Your task to perform on an android device: turn on airplane mode Image 0: 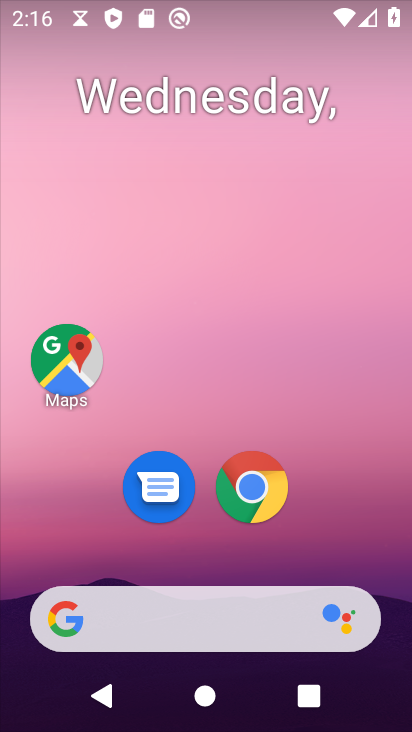
Step 0: drag from (232, 431) to (216, 115)
Your task to perform on an android device: turn on airplane mode Image 1: 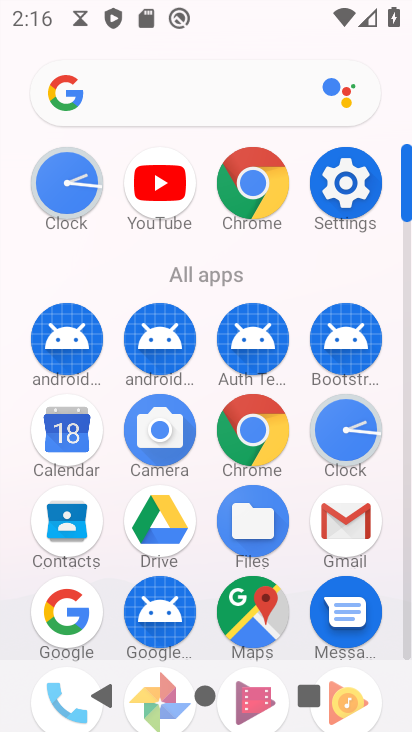
Step 1: click (343, 189)
Your task to perform on an android device: turn on airplane mode Image 2: 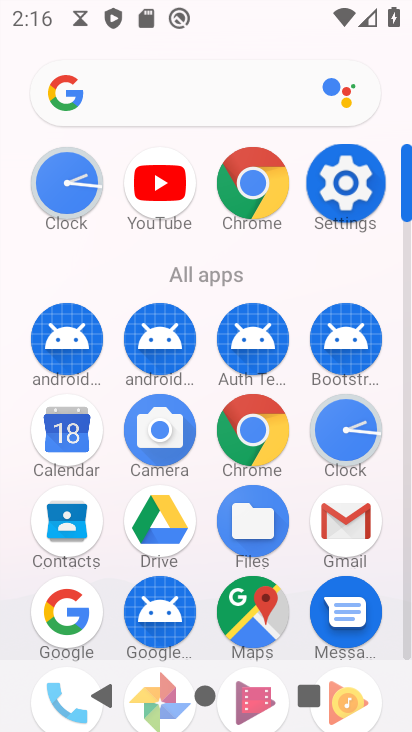
Step 2: click (346, 189)
Your task to perform on an android device: turn on airplane mode Image 3: 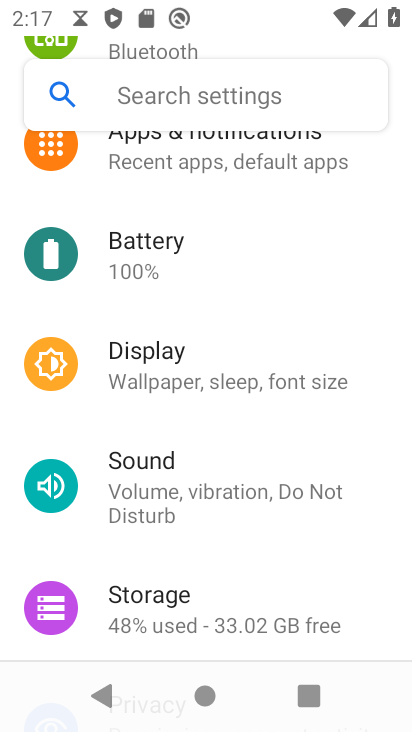
Step 3: drag from (134, 333) to (220, 598)
Your task to perform on an android device: turn on airplane mode Image 4: 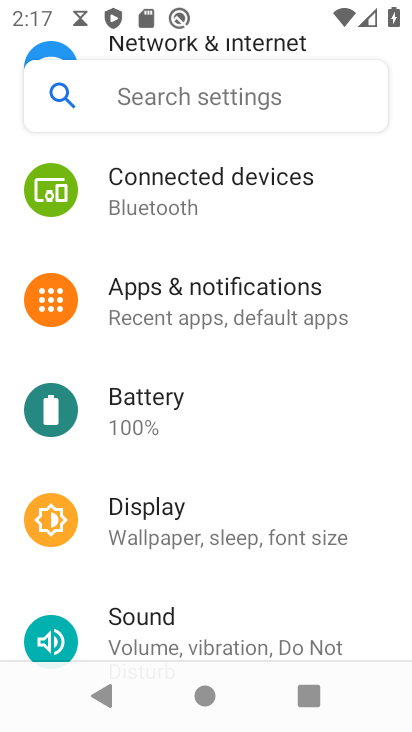
Step 4: drag from (219, 239) to (307, 509)
Your task to perform on an android device: turn on airplane mode Image 5: 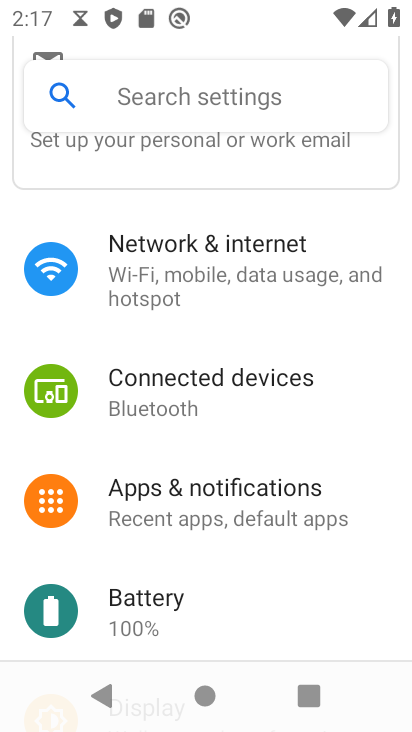
Step 5: click (191, 267)
Your task to perform on an android device: turn on airplane mode Image 6: 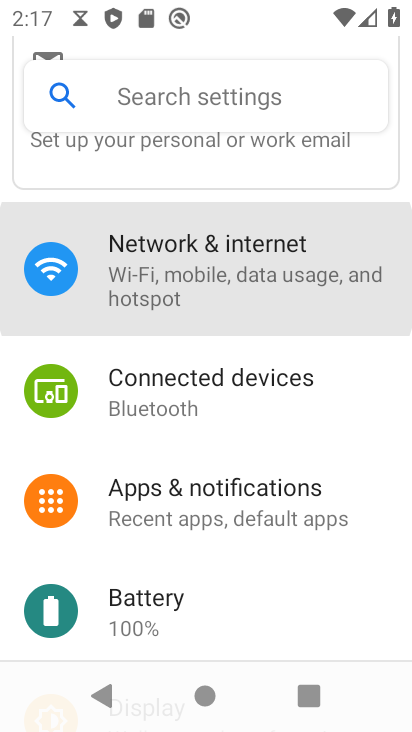
Step 6: click (192, 268)
Your task to perform on an android device: turn on airplane mode Image 7: 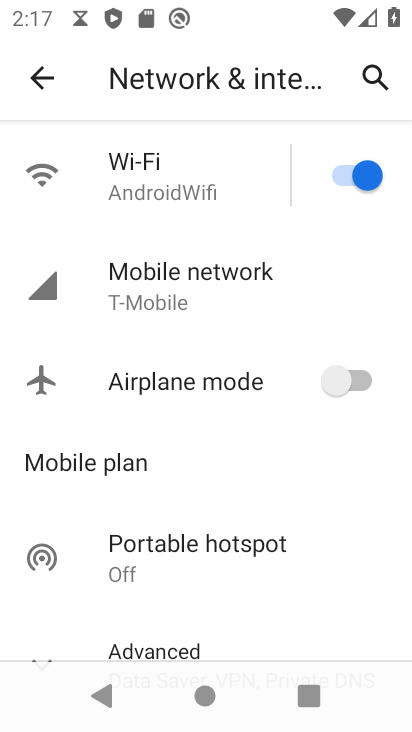
Step 7: click (327, 376)
Your task to perform on an android device: turn on airplane mode Image 8: 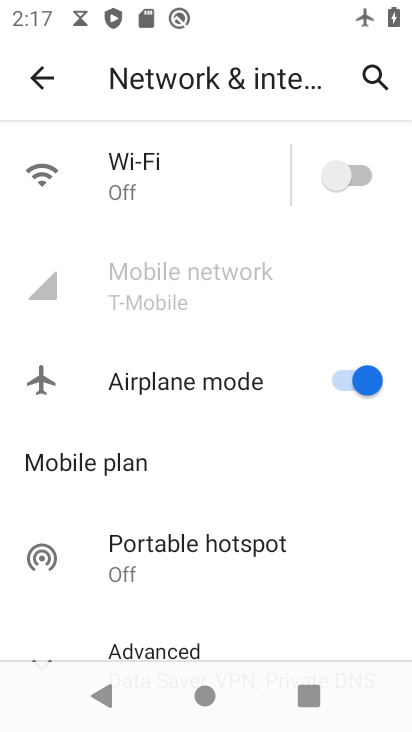
Step 8: task complete